Your task to perform on an android device: Open battery settings Image 0: 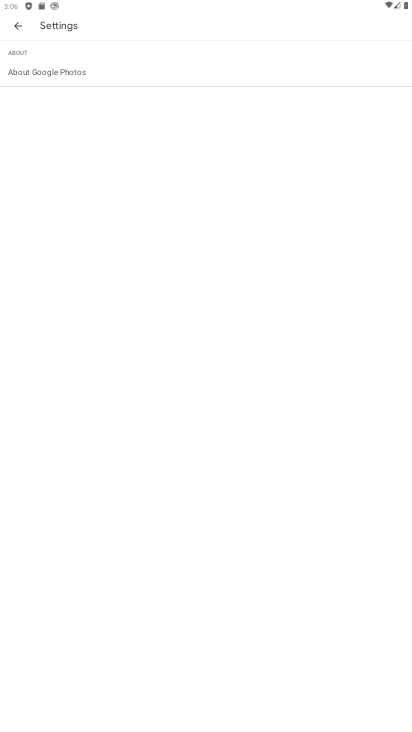
Step 0: press home button
Your task to perform on an android device: Open battery settings Image 1: 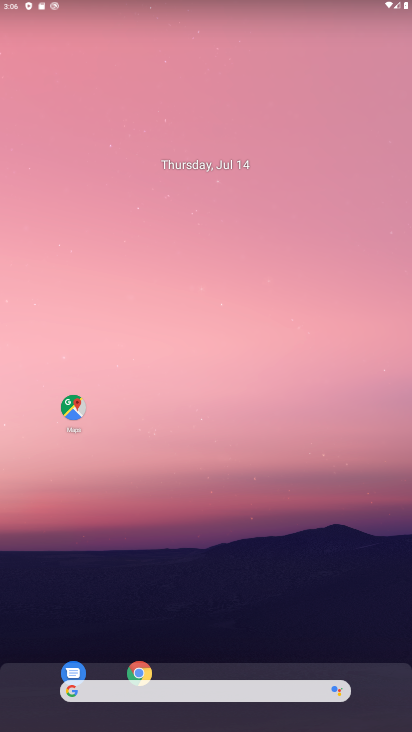
Step 1: drag from (225, 674) to (303, 255)
Your task to perform on an android device: Open battery settings Image 2: 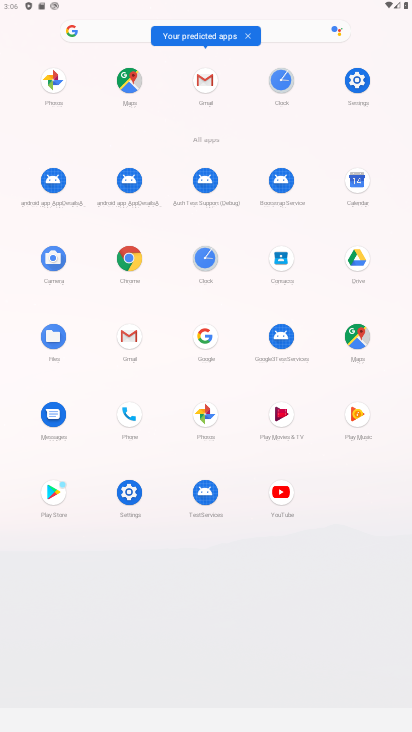
Step 2: click (121, 496)
Your task to perform on an android device: Open battery settings Image 3: 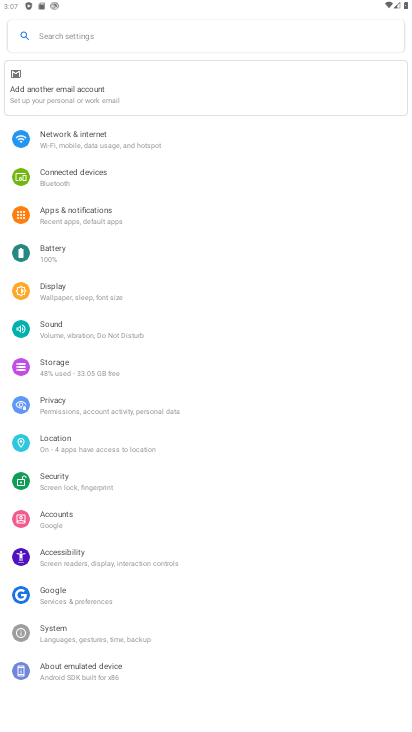
Step 3: click (81, 258)
Your task to perform on an android device: Open battery settings Image 4: 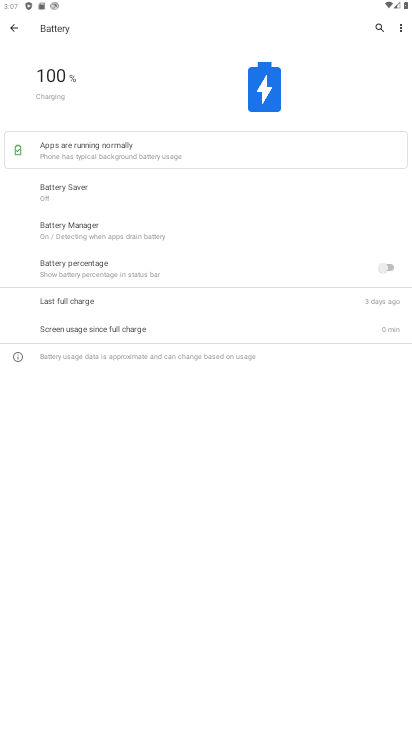
Step 4: task complete